Your task to perform on an android device: Do I have any events today? Image 0: 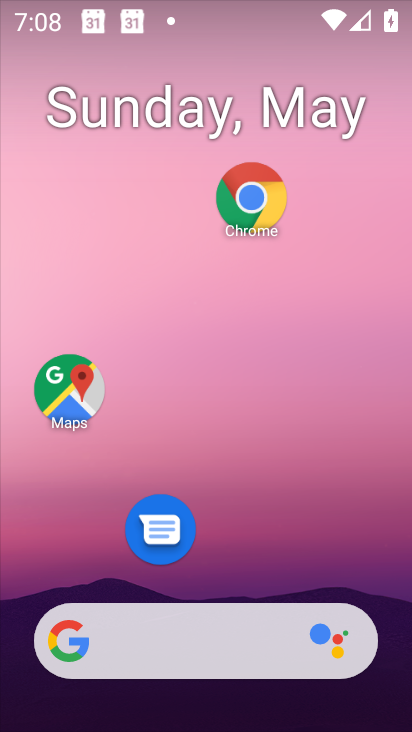
Step 0: drag from (232, 567) to (231, 244)
Your task to perform on an android device: Do I have any events today? Image 1: 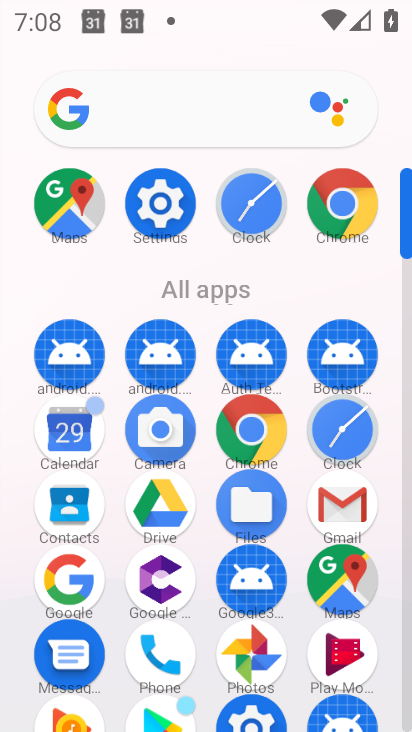
Step 1: click (61, 446)
Your task to perform on an android device: Do I have any events today? Image 2: 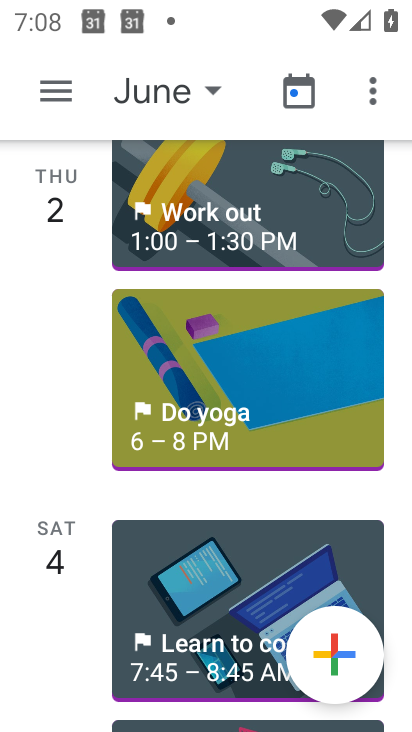
Step 2: click (151, 85)
Your task to perform on an android device: Do I have any events today? Image 3: 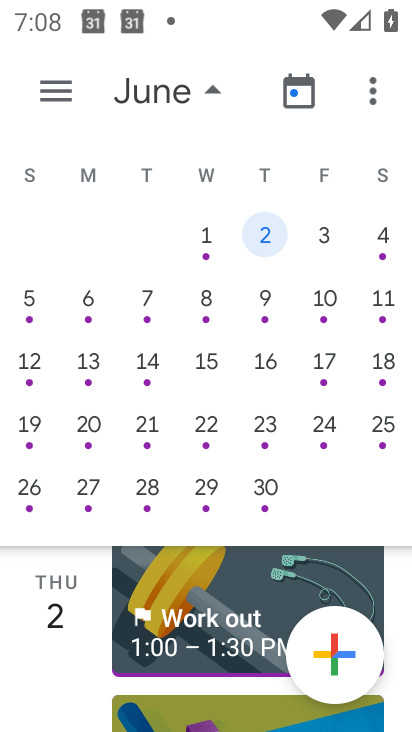
Step 3: drag from (143, 309) to (411, 315)
Your task to perform on an android device: Do I have any events today? Image 4: 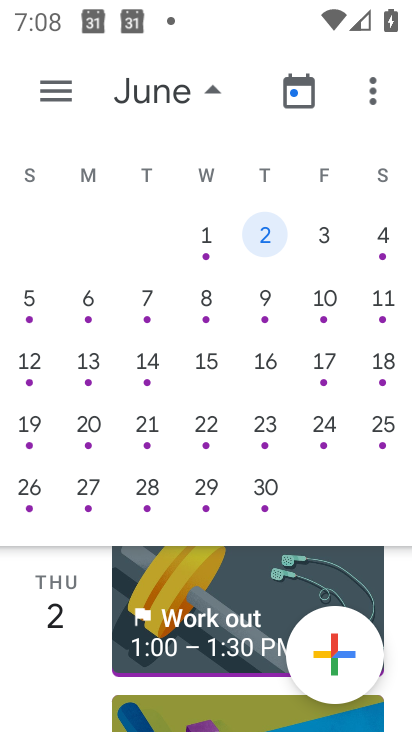
Step 4: drag from (26, 341) to (401, 311)
Your task to perform on an android device: Do I have any events today? Image 5: 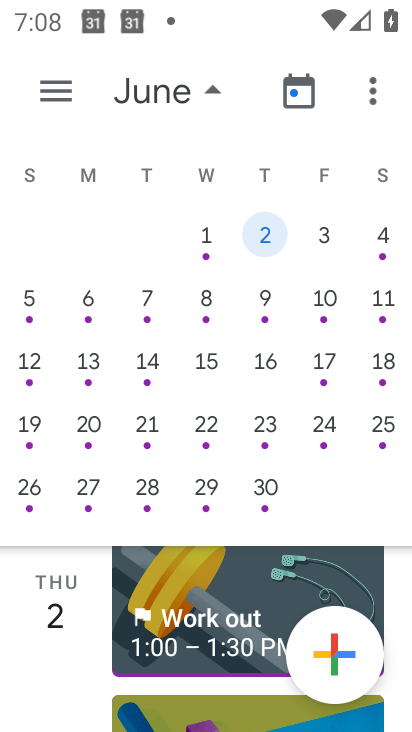
Step 5: drag from (106, 322) to (352, 272)
Your task to perform on an android device: Do I have any events today? Image 6: 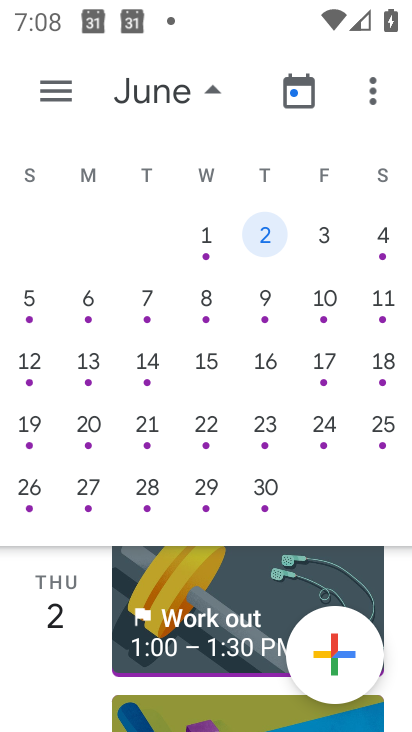
Step 6: click (74, 93)
Your task to perform on an android device: Do I have any events today? Image 7: 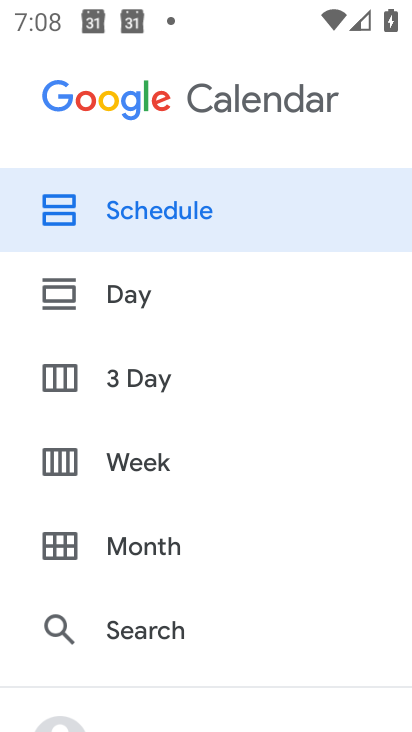
Step 7: click (144, 205)
Your task to perform on an android device: Do I have any events today? Image 8: 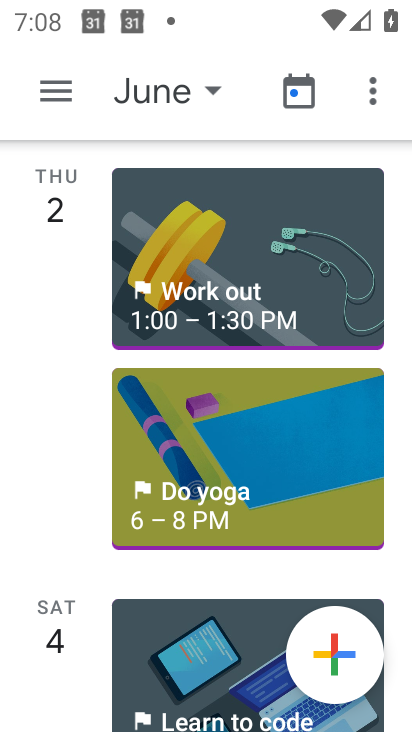
Step 8: click (193, 92)
Your task to perform on an android device: Do I have any events today? Image 9: 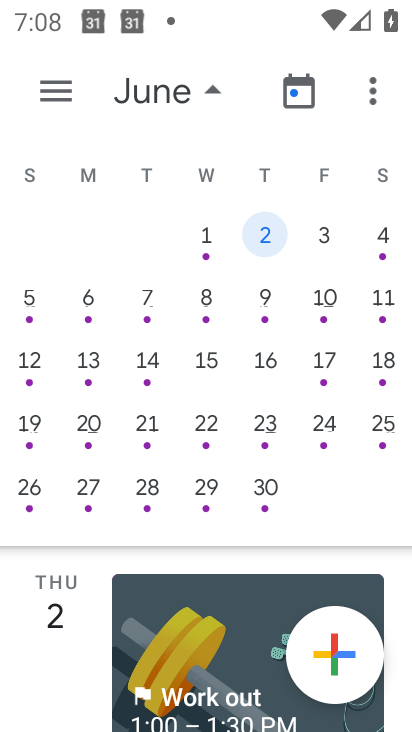
Step 9: drag from (43, 244) to (388, 202)
Your task to perform on an android device: Do I have any events today? Image 10: 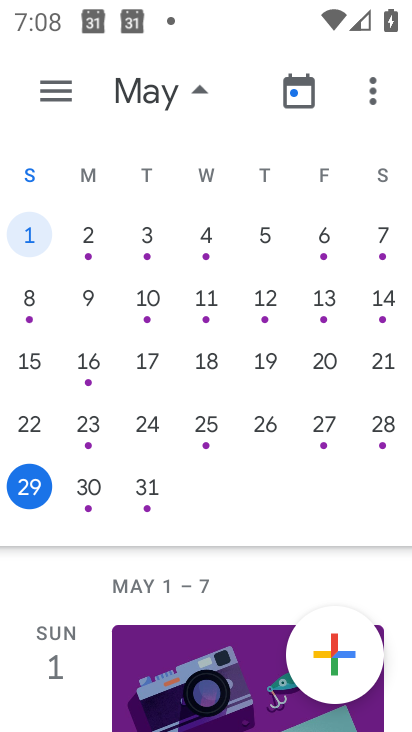
Step 10: click (74, 489)
Your task to perform on an android device: Do I have any events today? Image 11: 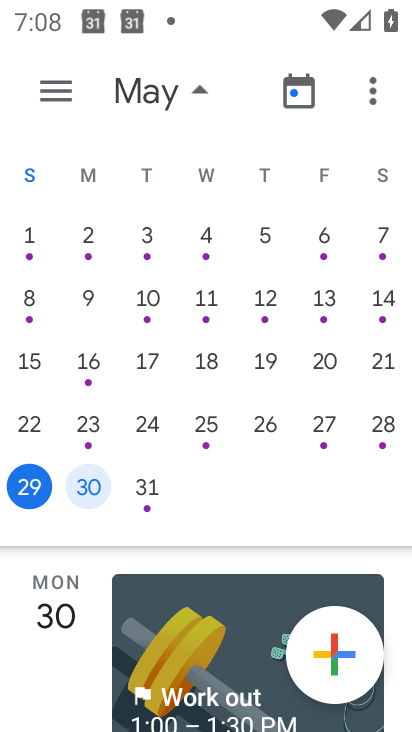
Step 11: task complete